Your task to perform on an android device: allow cookies in the chrome app Image 0: 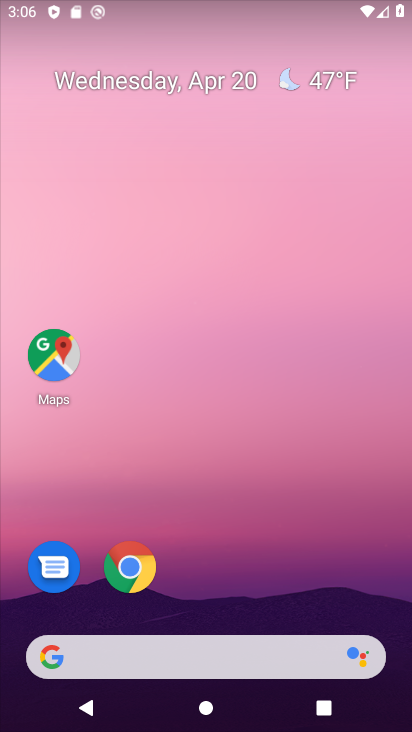
Step 0: drag from (306, 543) to (199, 7)
Your task to perform on an android device: allow cookies in the chrome app Image 1: 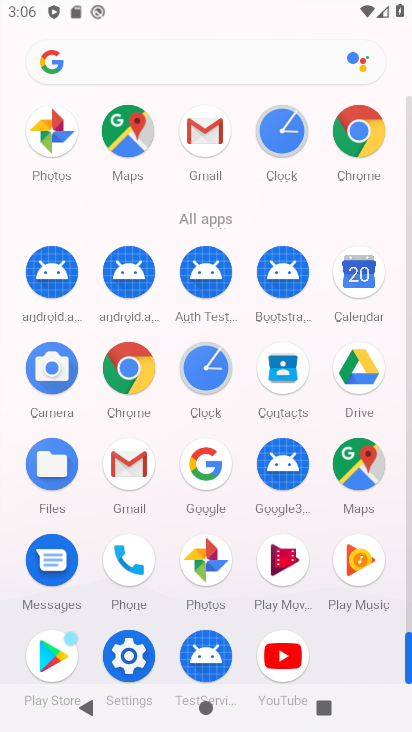
Step 1: drag from (6, 464) to (4, 173)
Your task to perform on an android device: allow cookies in the chrome app Image 2: 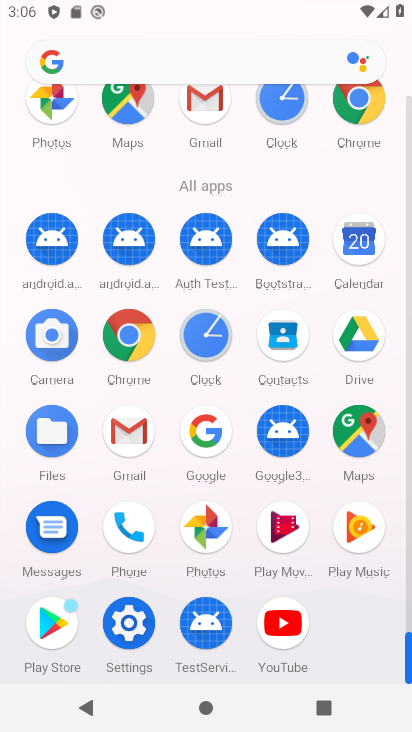
Step 2: click (357, 95)
Your task to perform on an android device: allow cookies in the chrome app Image 3: 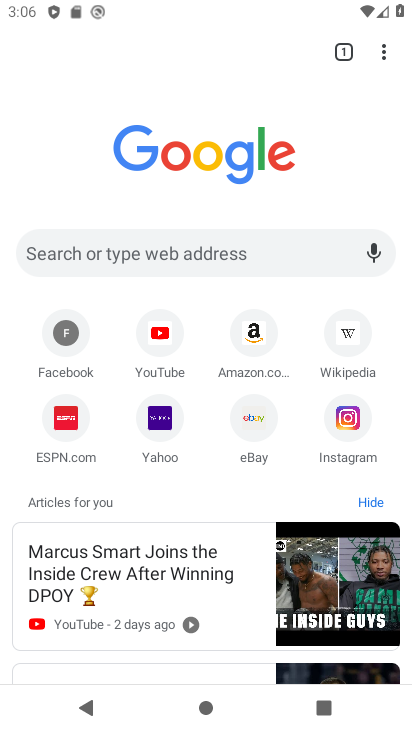
Step 3: drag from (380, 54) to (210, 432)
Your task to perform on an android device: allow cookies in the chrome app Image 4: 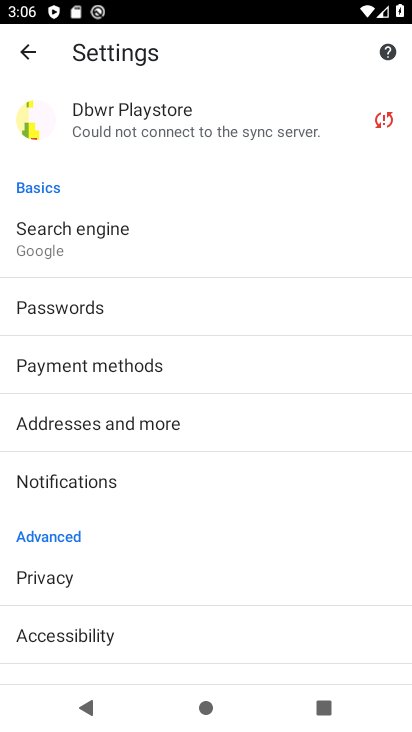
Step 4: drag from (204, 504) to (244, 191)
Your task to perform on an android device: allow cookies in the chrome app Image 5: 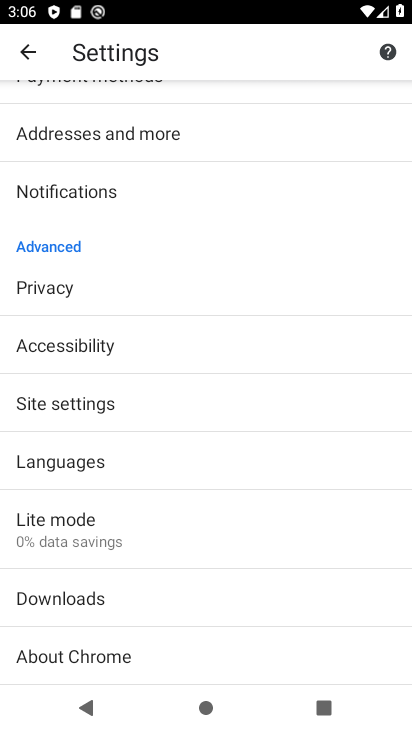
Step 5: click (111, 400)
Your task to perform on an android device: allow cookies in the chrome app Image 6: 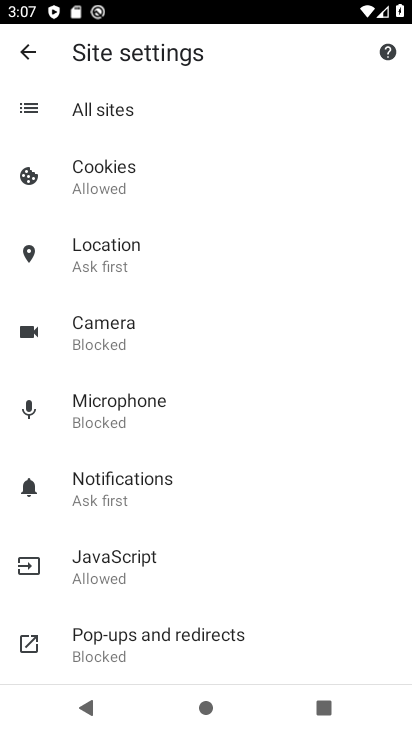
Step 6: task complete